Your task to perform on an android device: choose inbox layout in the gmail app Image 0: 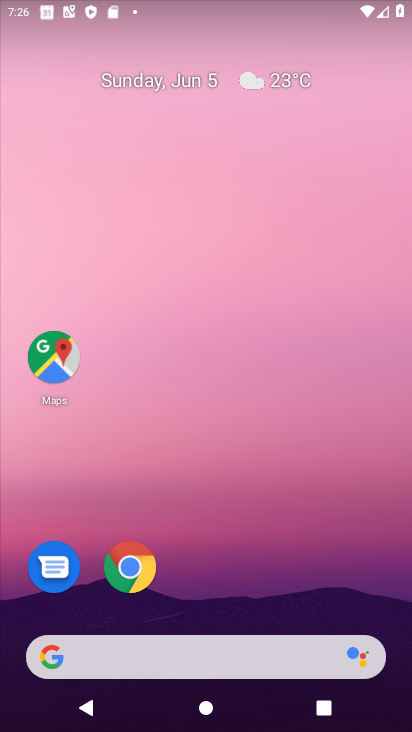
Step 0: drag from (399, 663) to (284, 23)
Your task to perform on an android device: choose inbox layout in the gmail app Image 1: 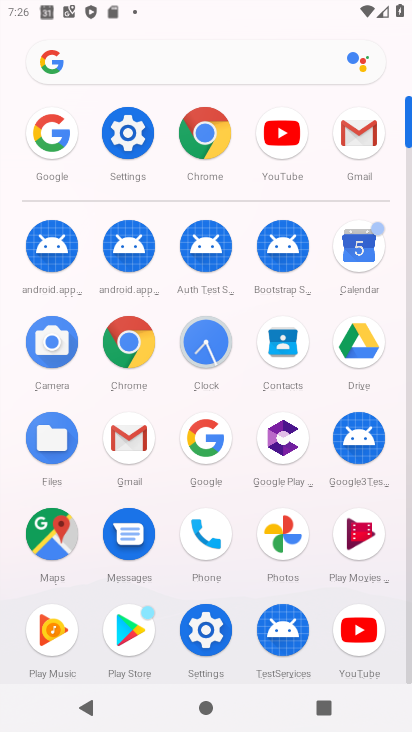
Step 1: click (127, 449)
Your task to perform on an android device: choose inbox layout in the gmail app Image 2: 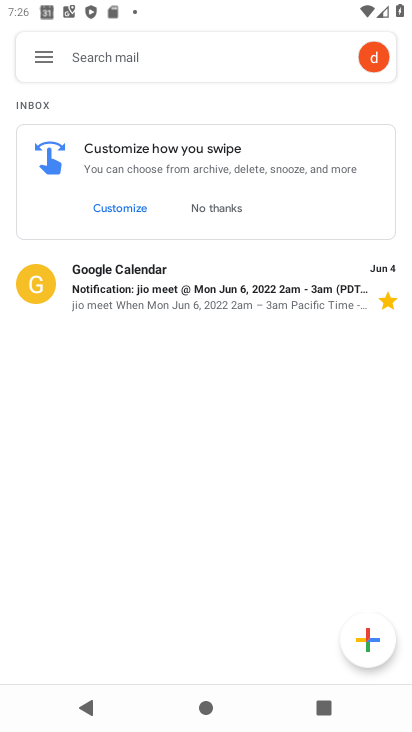
Step 2: task complete